Your task to perform on an android device: Open accessibility settings Image 0: 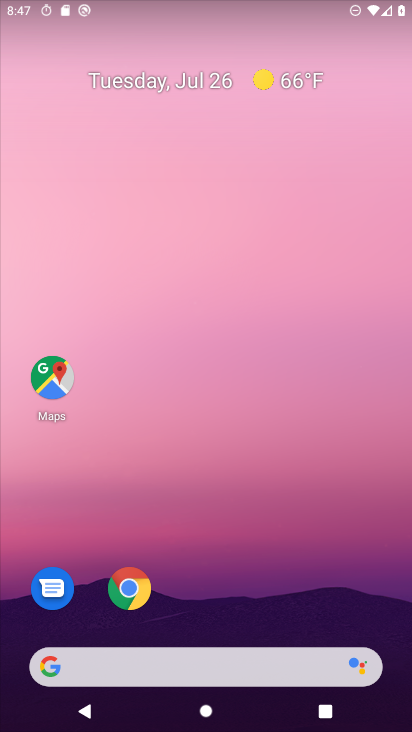
Step 0: drag from (226, 725) to (210, 203)
Your task to perform on an android device: Open accessibility settings Image 1: 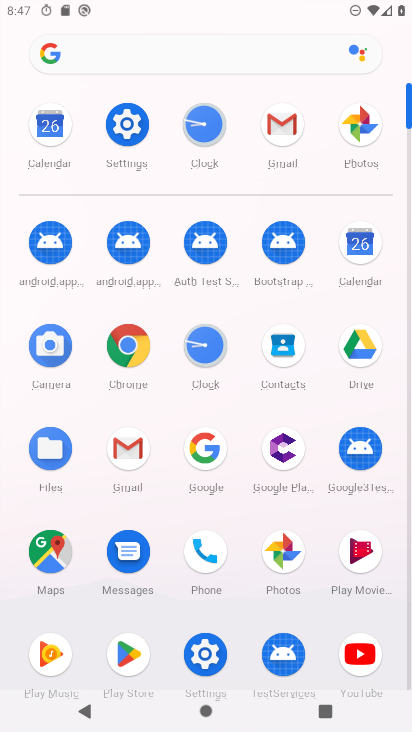
Step 1: click (123, 121)
Your task to perform on an android device: Open accessibility settings Image 2: 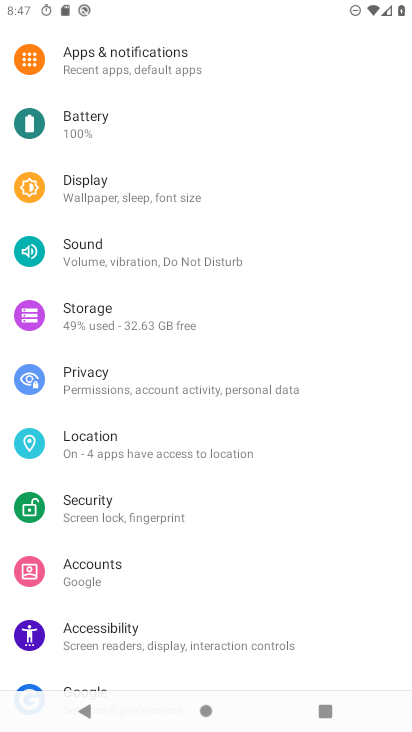
Step 2: click (112, 629)
Your task to perform on an android device: Open accessibility settings Image 3: 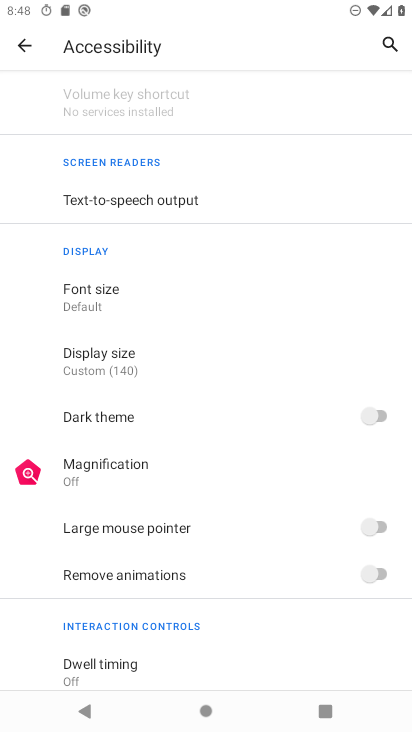
Step 3: task complete